Your task to perform on an android device: Open the Play Movies app and select the watchlist tab. Image 0: 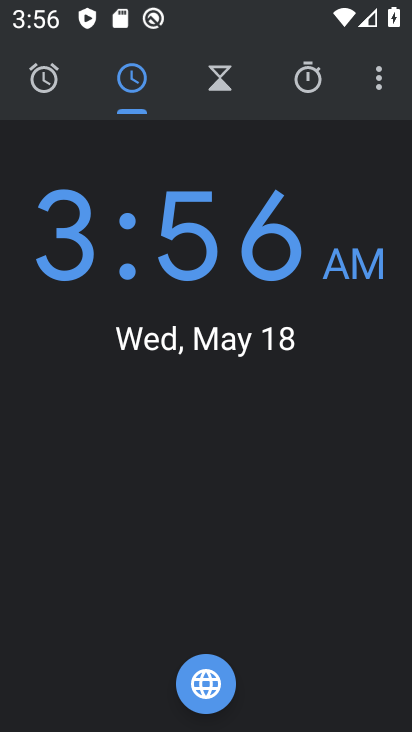
Step 0: press home button
Your task to perform on an android device: Open the Play Movies app and select the watchlist tab. Image 1: 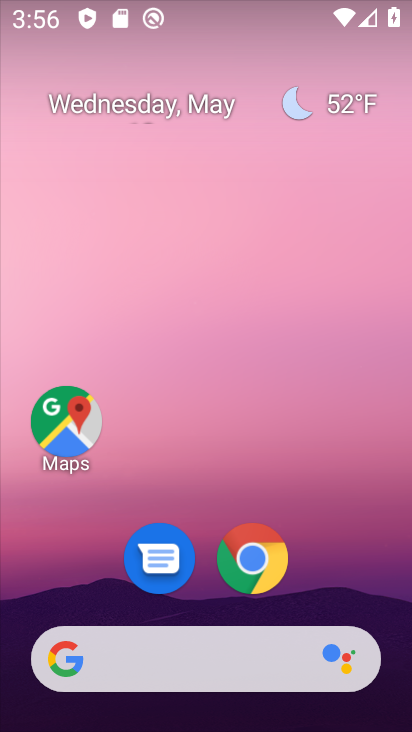
Step 1: drag from (363, 540) to (411, 394)
Your task to perform on an android device: Open the Play Movies app and select the watchlist tab. Image 2: 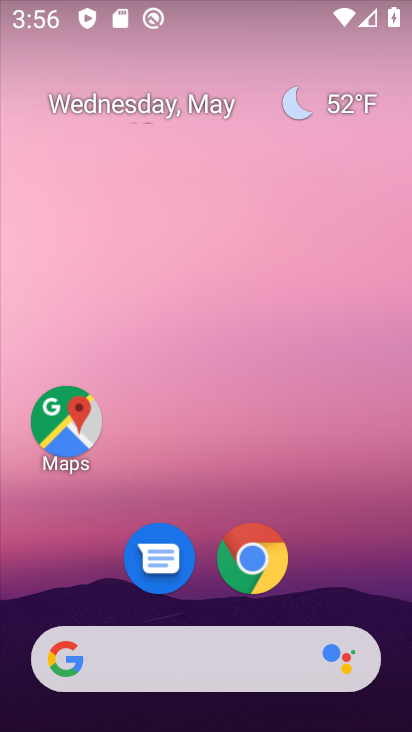
Step 2: drag from (334, 547) to (344, 98)
Your task to perform on an android device: Open the Play Movies app and select the watchlist tab. Image 3: 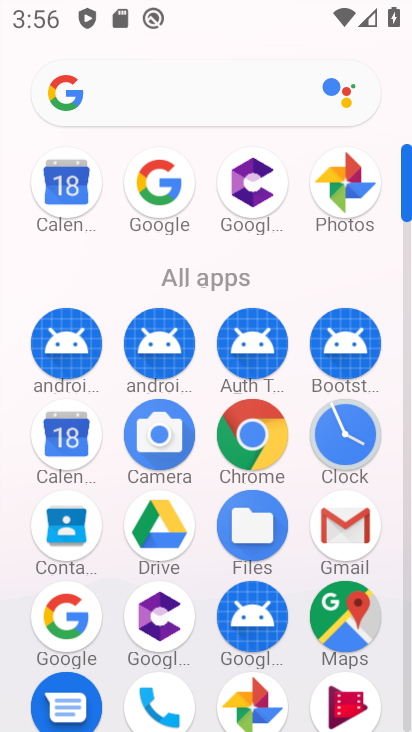
Step 3: click (322, 700)
Your task to perform on an android device: Open the Play Movies app and select the watchlist tab. Image 4: 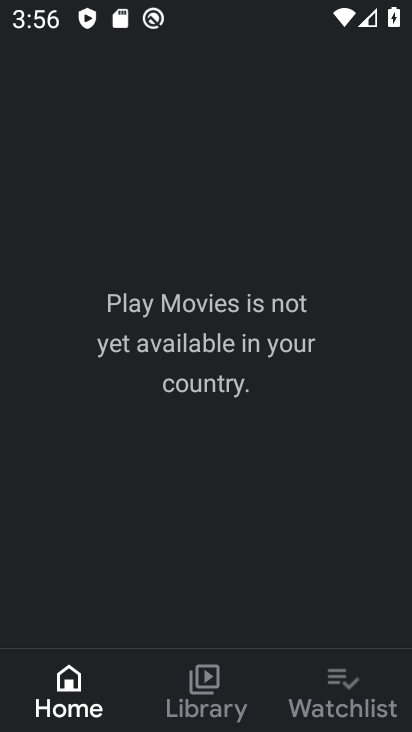
Step 4: click (334, 705)
Your task to perform on an android device: Open the Play Movies app and select the watchlist tab. Image 5: 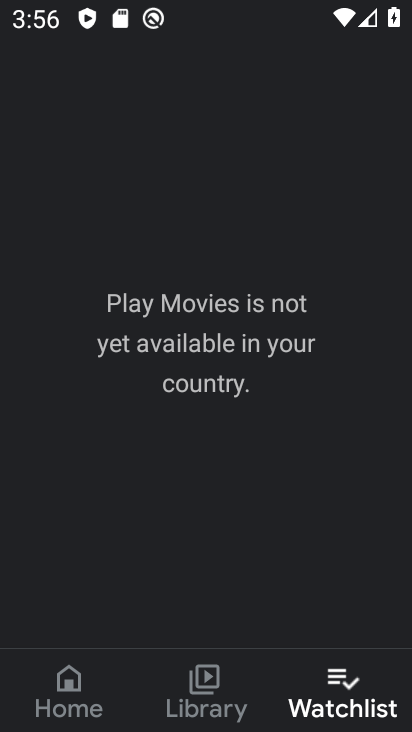
Step 5: task complete